Your task to perform on an android device: turn on the 12-hour format for clock Image 0: 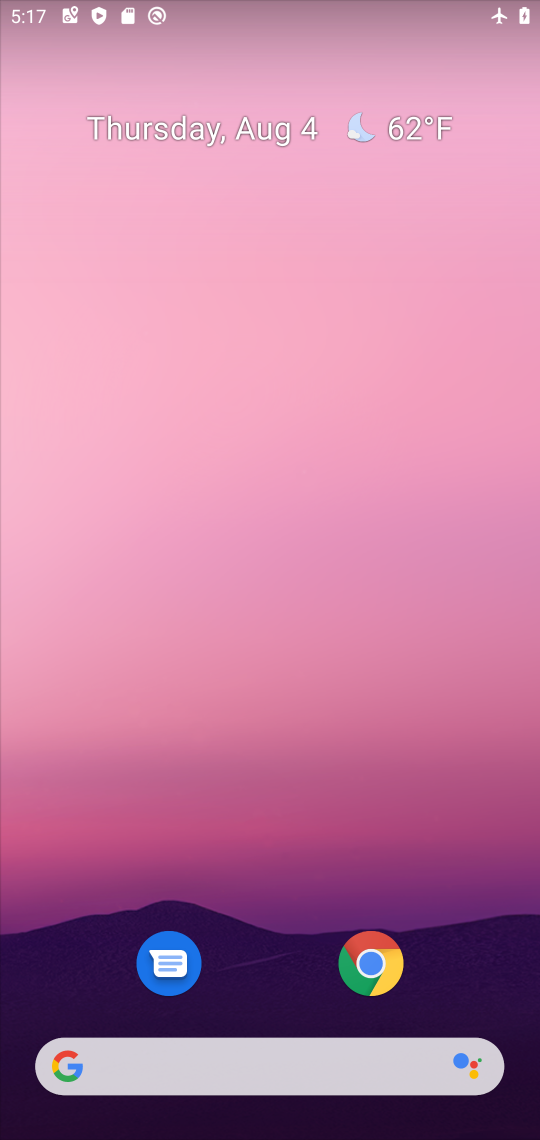
Step 0: drag from (300, 862) to (256, 5)
Your task to perform on an android device: turn on the 12-hour format for clock Image 1: 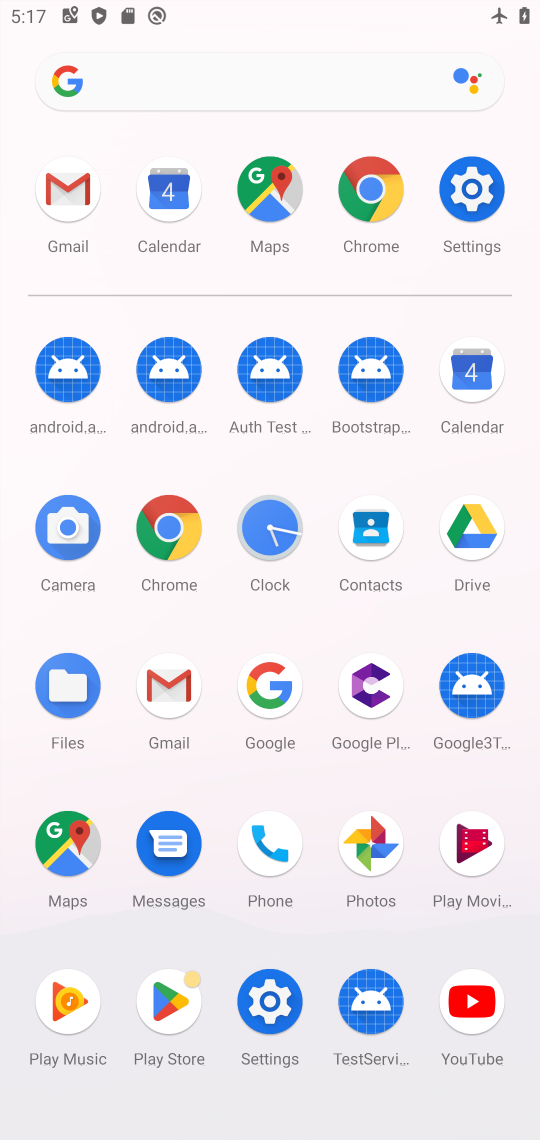
Step 1: click (263, 530)
Your task to perform on an android device: turn on the 12-hour format for clock Image 2: 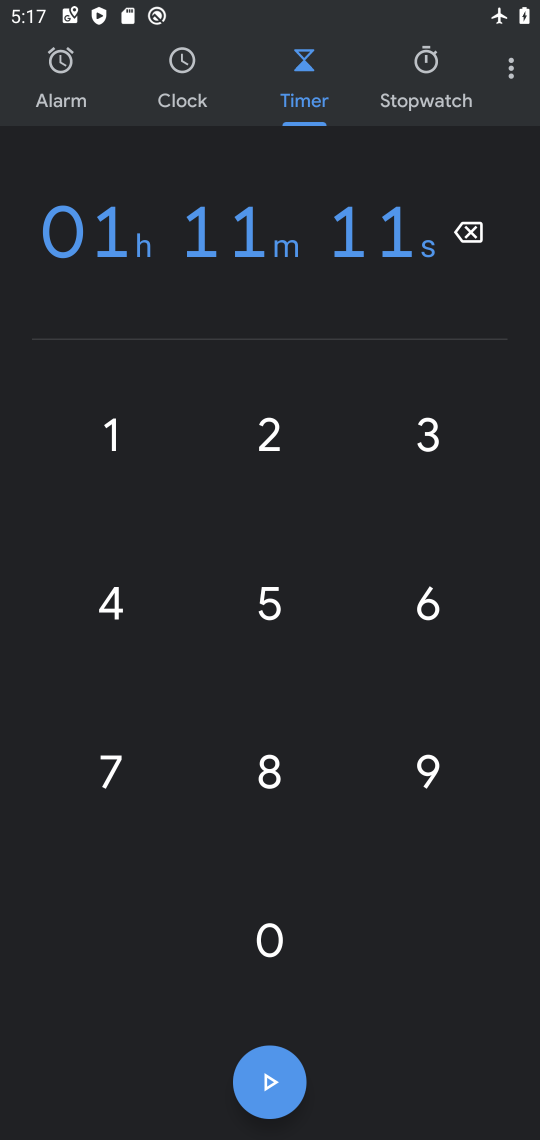
Step 2: click (523, 75)
Your task to perform on an android device: turn on the 12-hour format for clock Image 3: 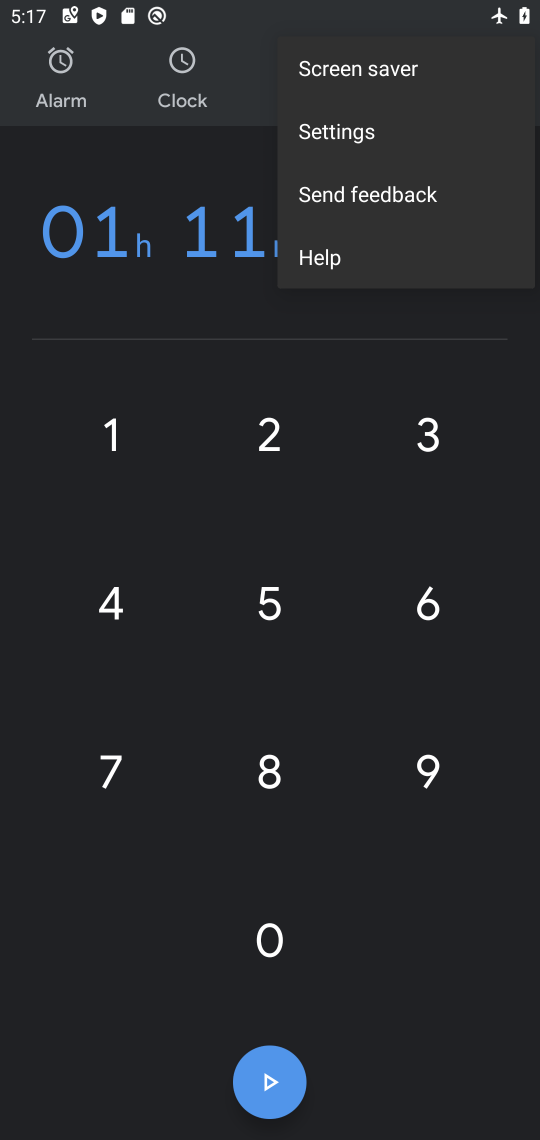
Step 3: click (343, 132)
Your task to perform on an android device: turn on the 12-hour format for clock Image 4: 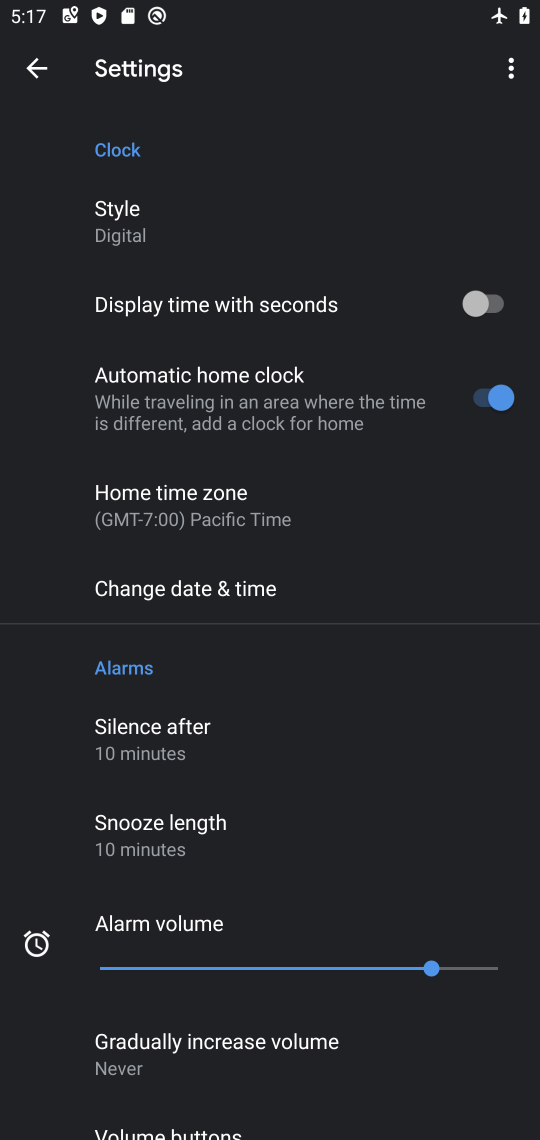
Step 4: click (211, 585)
Your task to perform on an android device: turn on the 12-hour format for clock Image 5: 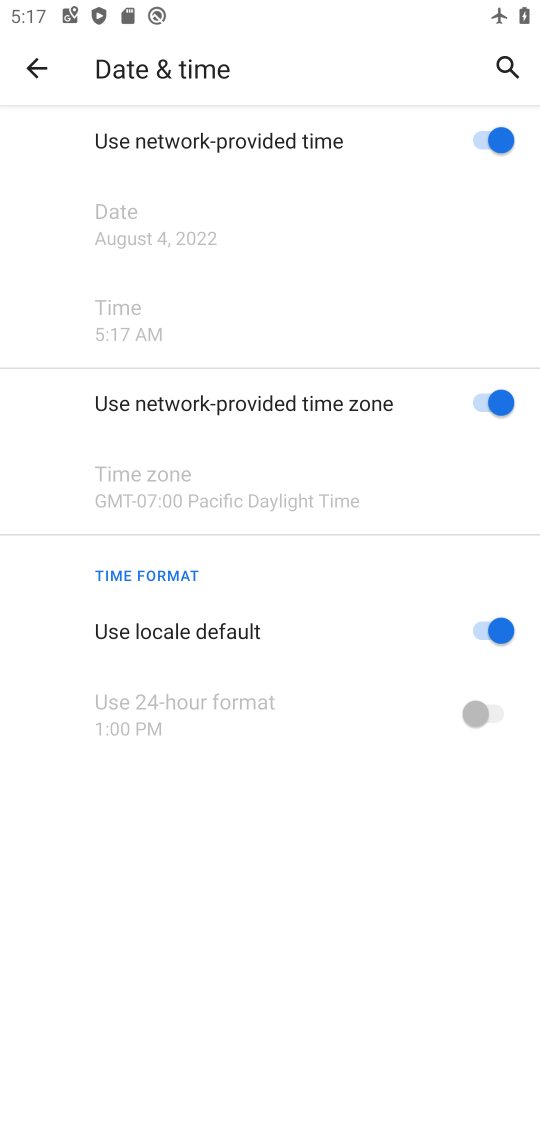
Step 5: task complete